Your task to perform on an android device: find snoozed emails in the gmail app Image 0: 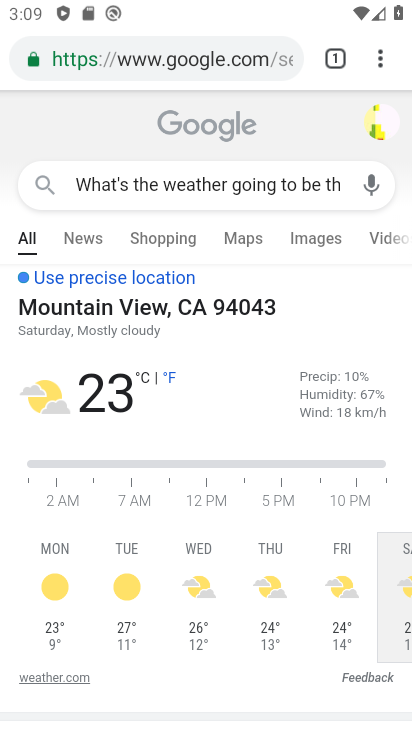
Step 0: press home button
Your task to perform on an android device: find snoozed emails in the gmail app Image 1: 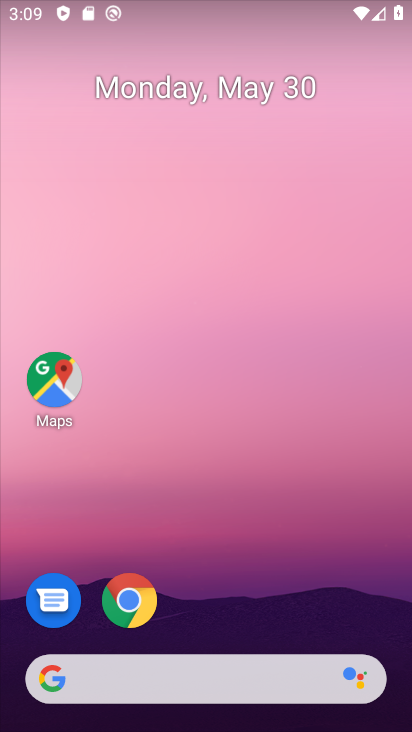
Step 1: drag from (239, 620) to (221, 169)
Your task to perform on an android device: find snoozed emails in the gmail app Image 2: 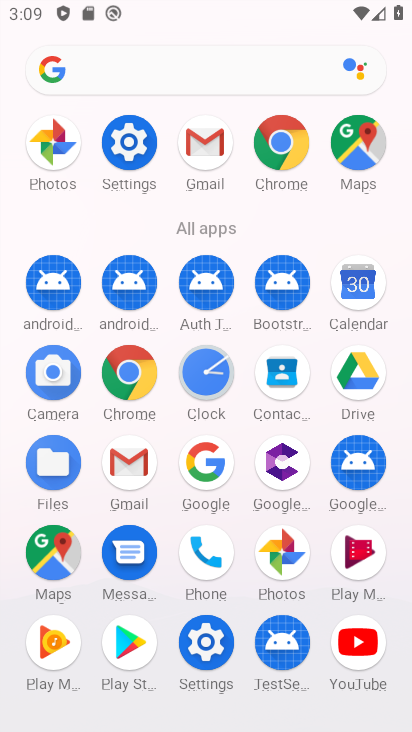
Step 2: click (217, 150)
Your task to perform on an android device: find snoozed emails in the gmail app Image 3: 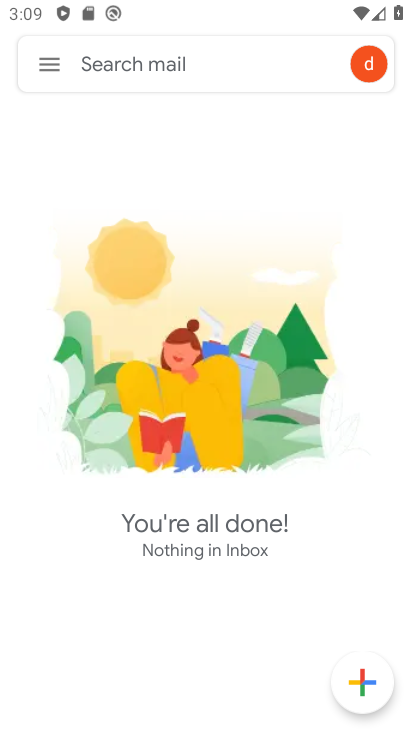
Step 3: click (54, 67)
Your task to perform on an android device: find snoozed emails in the gmail app Image 4: 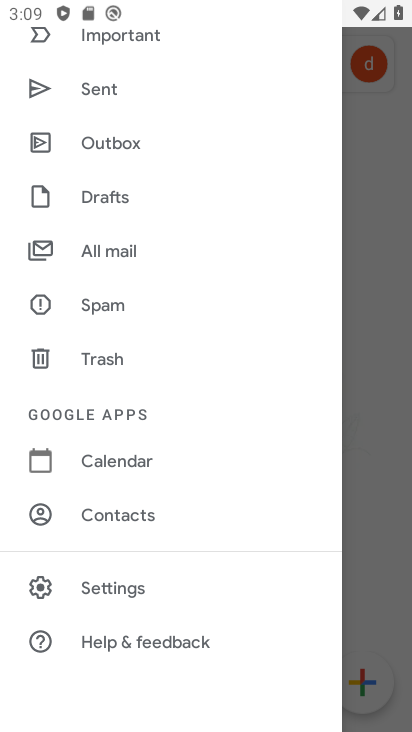
Step 4: drag from (169, 216) to (150, 597)
Your task to perform on an android device: find snoozed emails in the gmail app Image 5: 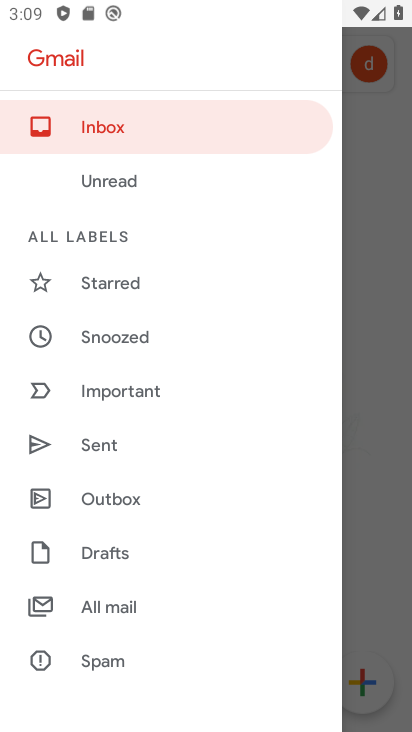
Step 5: click (155, 343)
Your task to perform on an android device: find snoozed emails in the gmail app Image 6: 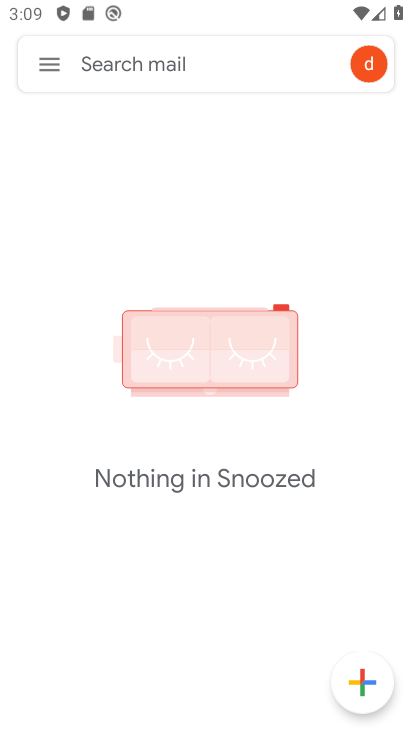
Step 6: task complete